Your task to perform on an android device: refresh tabs in the chrome app Image 0: 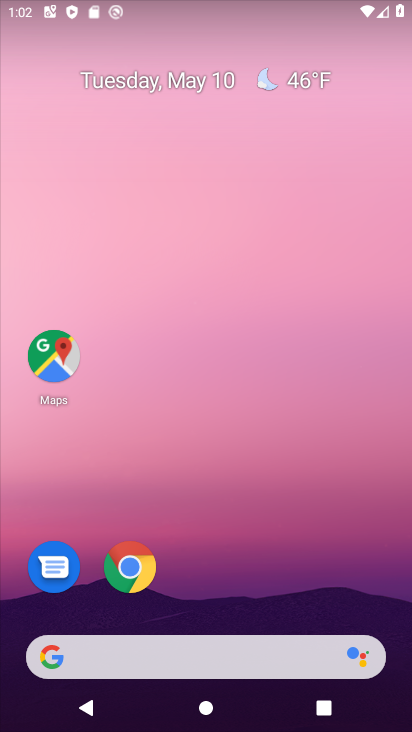
Step 0: drag from (284, 583) to (279, 200)
Your task to perform on an android device: refresh tabs in the chrome app Image 1: 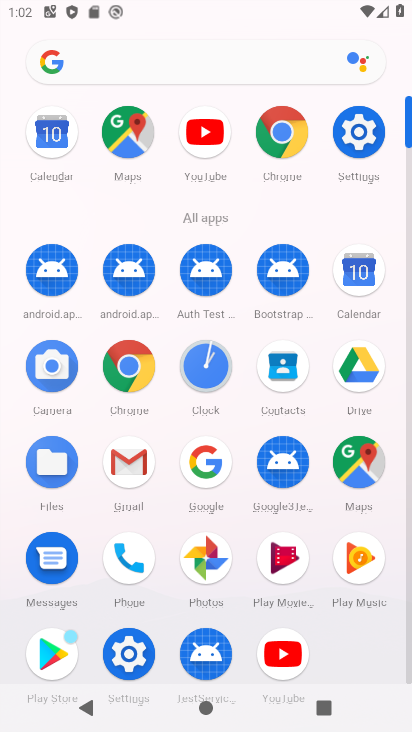
Step 1: click (294, 142)
Your task to perform on an android device: refresh tabs in the chrome app Image 2: 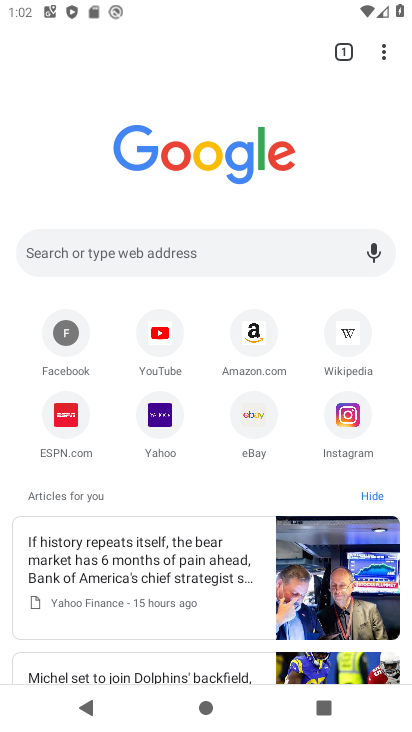
Step 2: click (394, 50)
Your task to perform on an android device: refresh tabs in the chrome app Image 3: 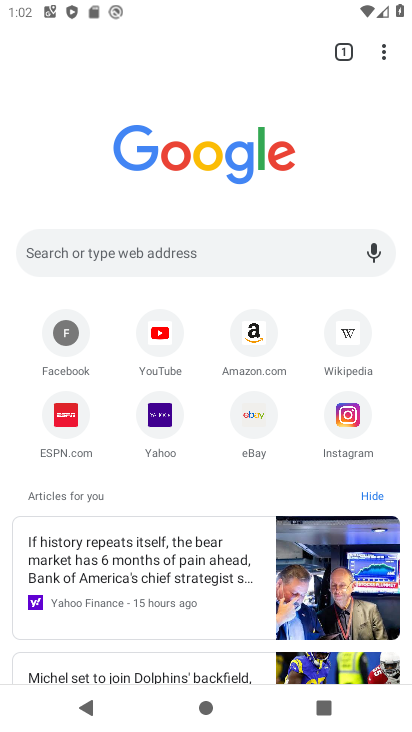
Step 3: task complete